Your task to perform on an android device: manage bookmarks in the chrome app Image 0: 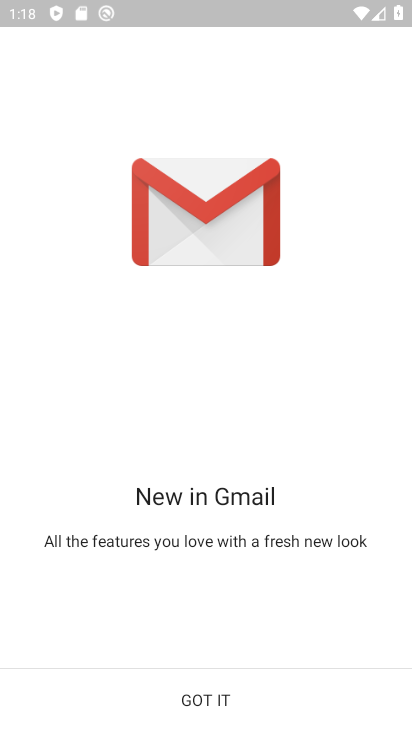
Step 0: press back button
Your task to perform on an android device: manage bookmarks in the chrome app Image 1: 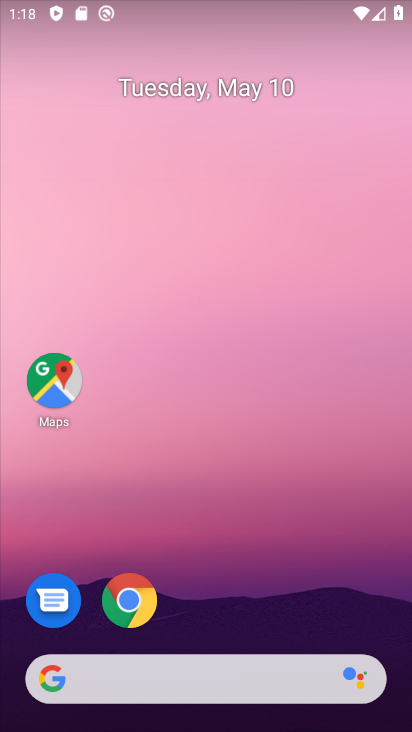
Step 1: click (138, 603)
Your task to perform on an android device: manage bookmarks in the chrome app Image 2: 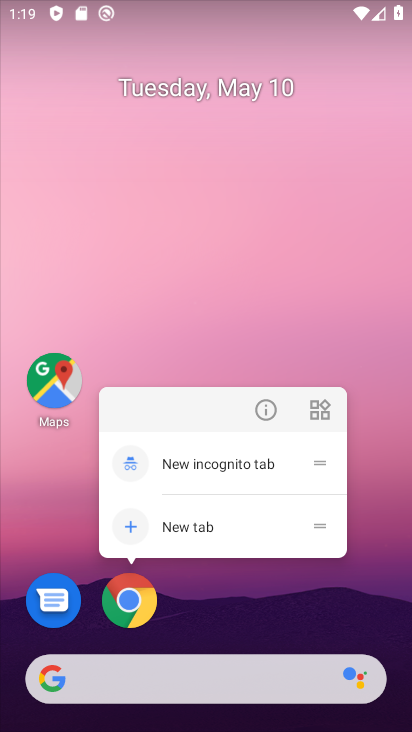
Step 2: click (115, 603)
Your task to perform on an android device: manage bookmarks in the chrome app Image 3: 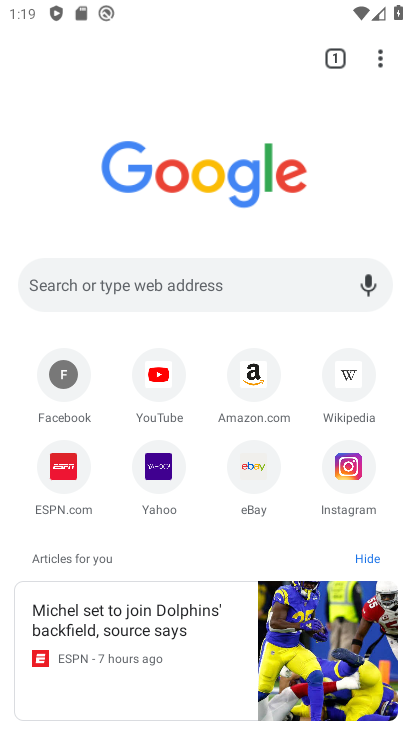
Step 3: click (379, 58)
Your task to perform on an android device: manage bookmarks in the chrome app Image 4: 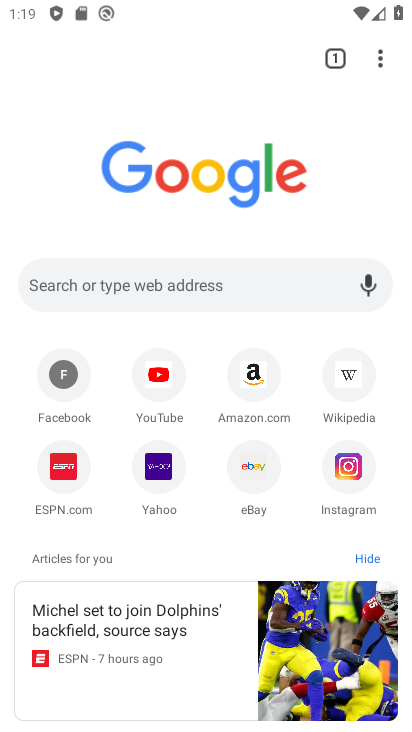
Step 4: click (377, 57)
Your task to perform on an android device: manage bookmarks in the chrome app Image 5: 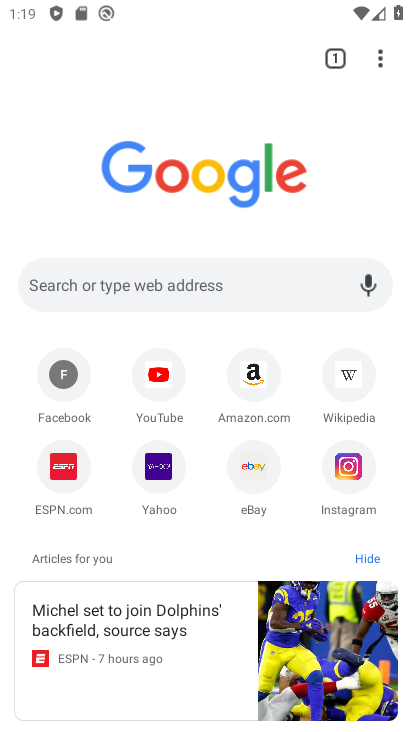
Step 5: task complete